Your task to perform on an android device: Open my contact list Image 0: 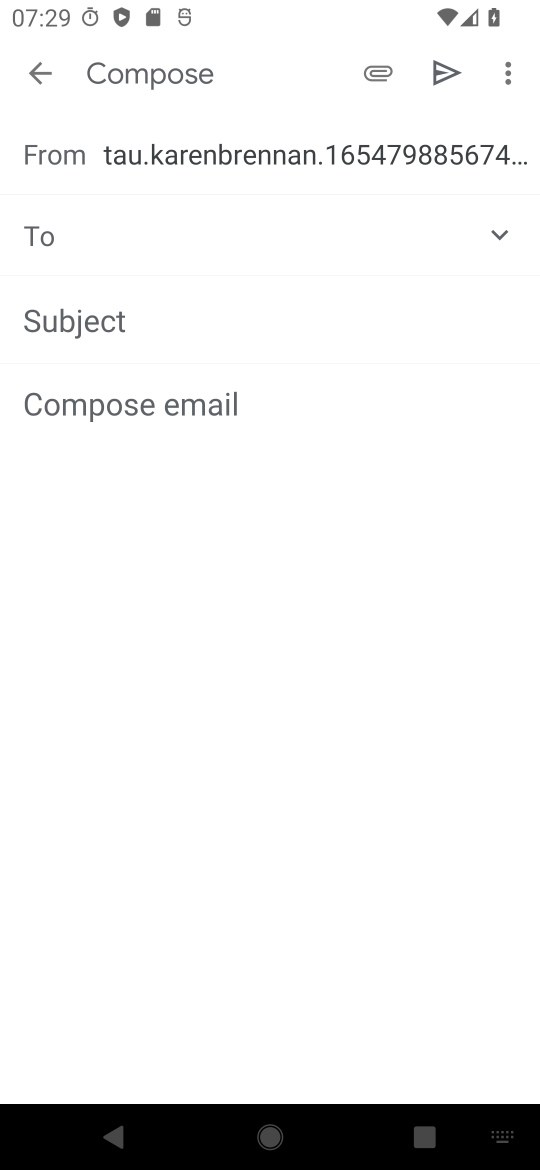
Step 0: press home button
Your task to perform on an android device: Open my contact list Image 1: 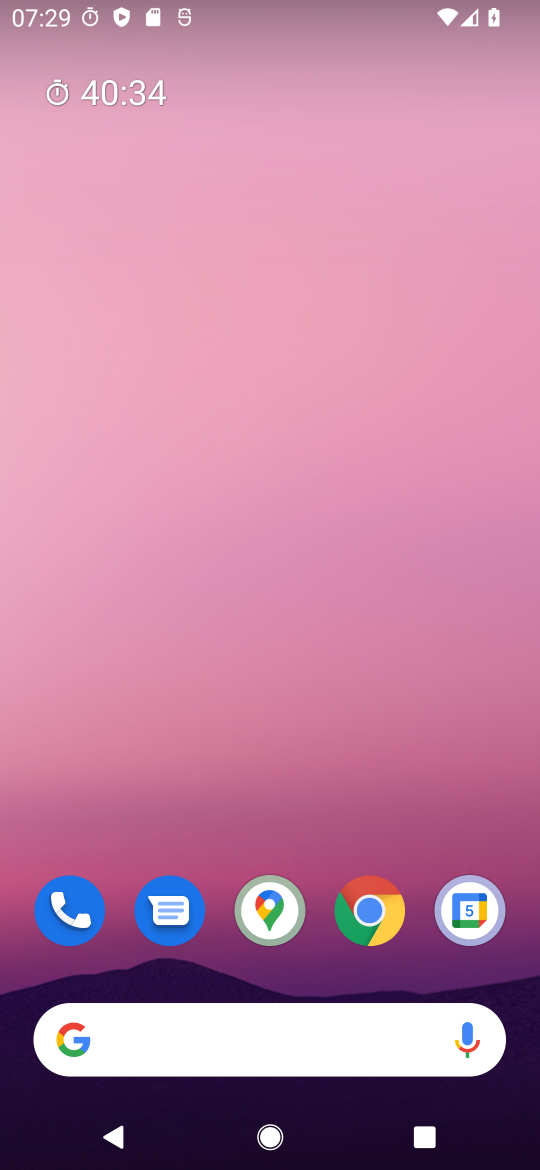
Step 1: drag from (292, 1040) to (166, 313)
Your task to perform on an android device: Open my contact list Image 2: 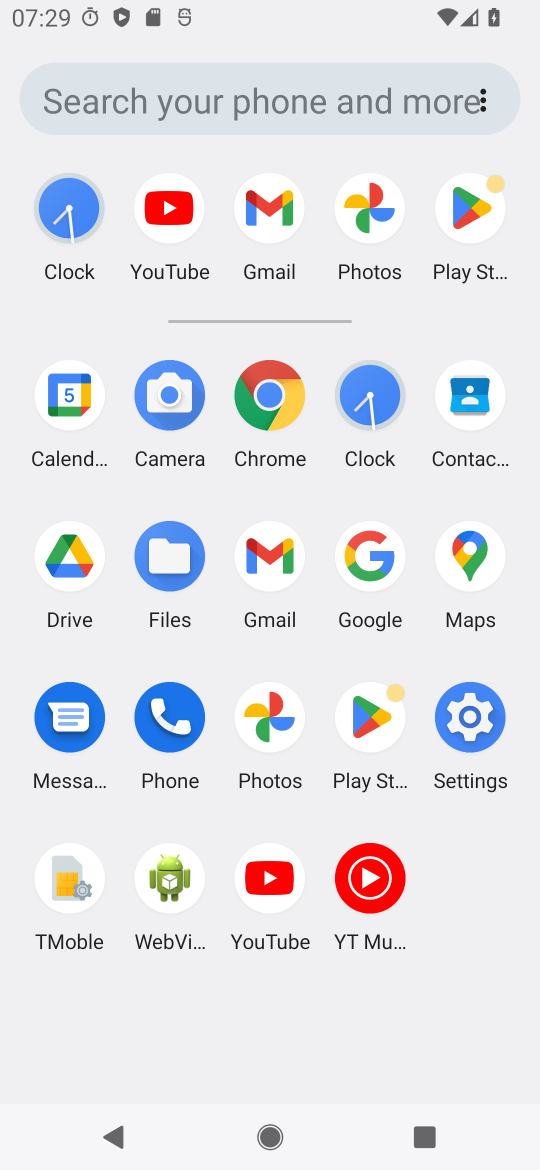
Step 2: click (476, 406)
Your task to perform on an android device: Open my contact list Image 3: 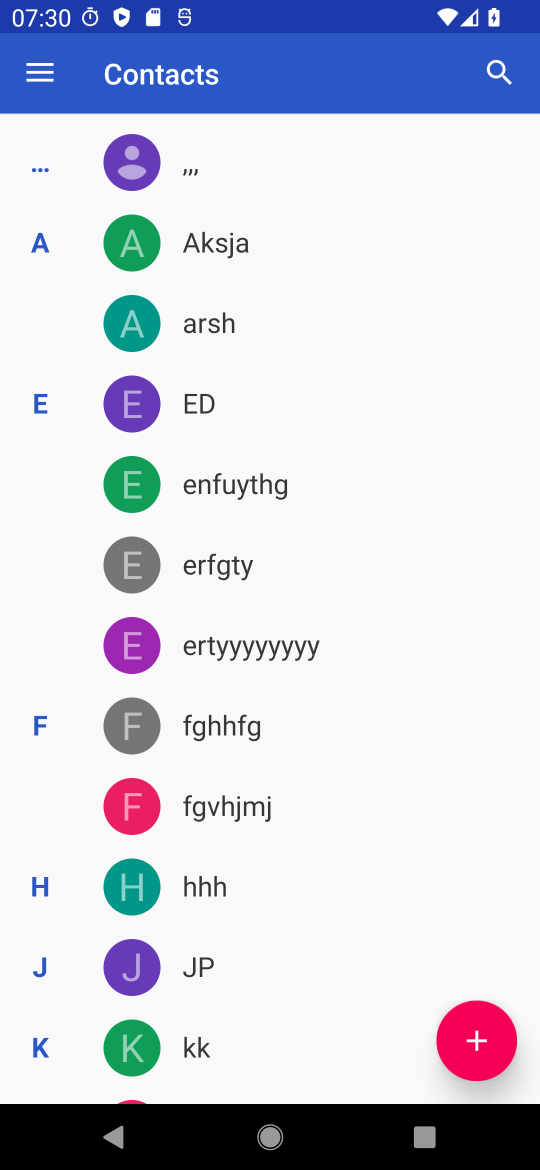
Step 3: task complete